Your task to perform on an android device: Go to notification settings Image 0: 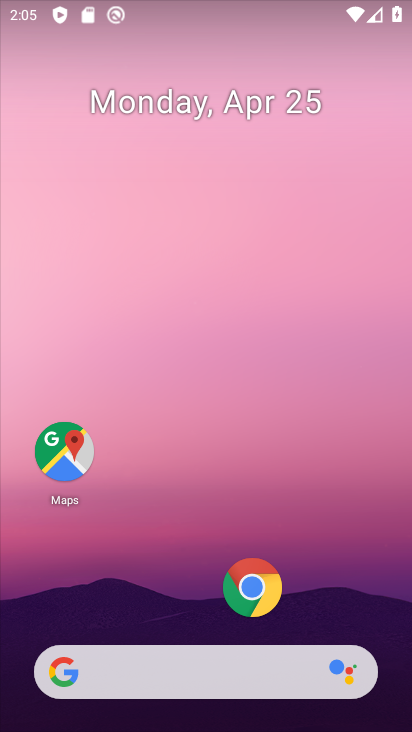
Step 0: drag from (206, 633) to (177, 73)
Your task to perform on an android device: Go to notification settings Image 1: 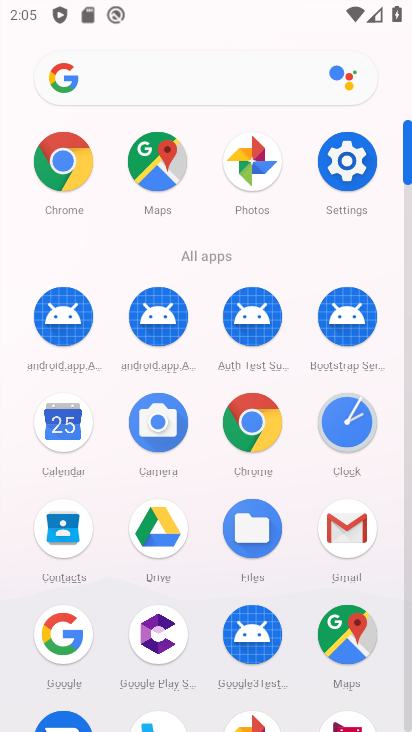
Step 1: click (345, 155)
Your task to perform on an android device: Go to notification settings Image 2: 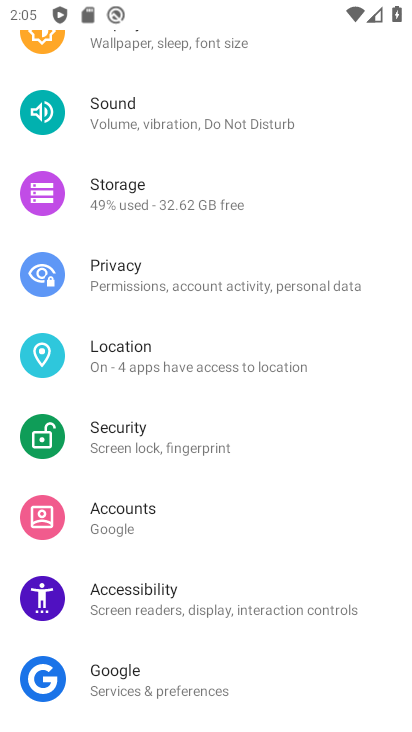
Step 2: drag from (165, 143) to (159, 637)
Your task to perform on an android device: Go to notification settings Image 3: 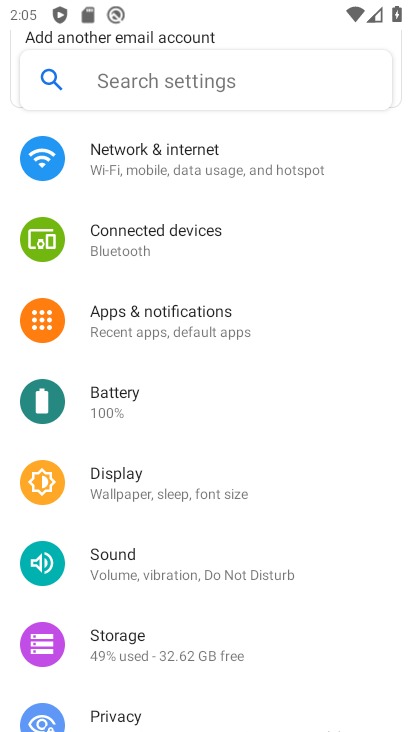
Step 3: click (243, 314)
Your task to perform on an android device: Go to notification settings Image 4: 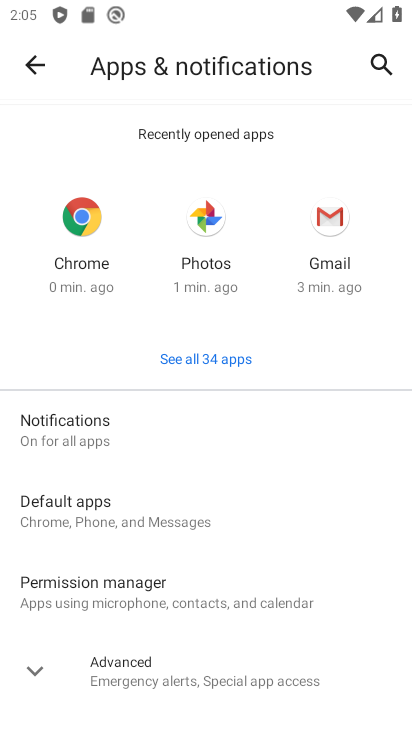
Step 4: click (115, 424)
Your task to perform on an android device: Go to notification settings Image 5: 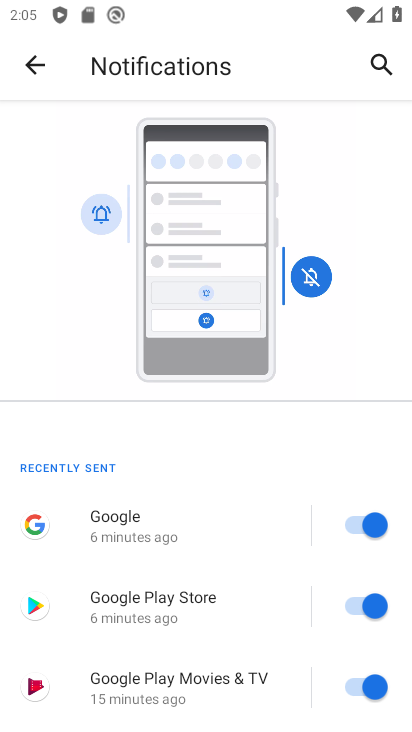
Step 5: drag from (235, 659) to (232, 228)
Your task to perform on an android device: Go to notification settings Image 6: 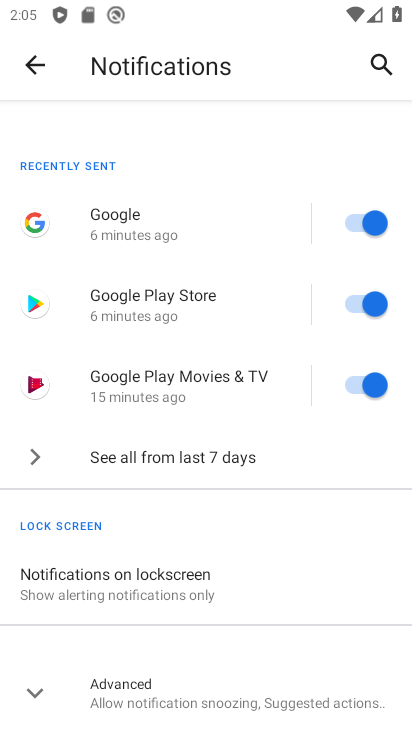
Step 6: click (352, 216)
Your task to perform on an android device: Go to notification settings Image 7: 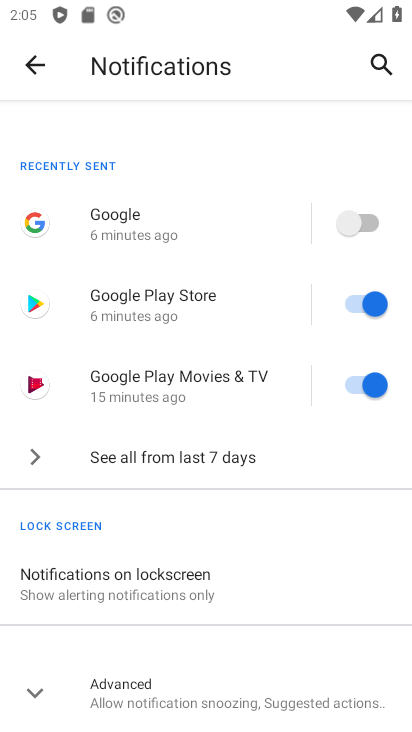
Step 7: click (348, 296)
Your task to perform on an android device: Go to notification settings Image 8: 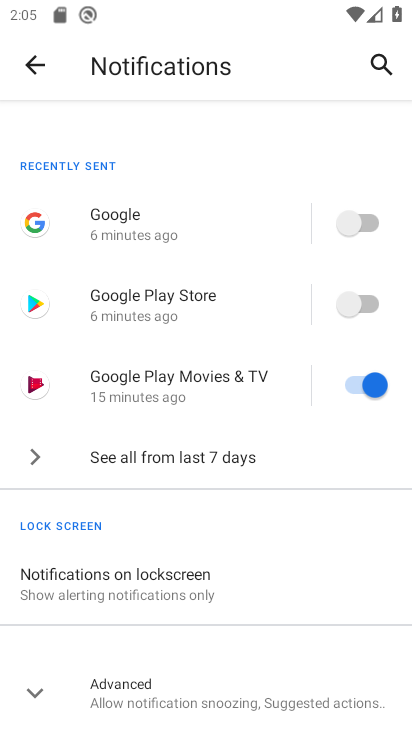
Step 8: click (358, 383)
Your task to perform on an android device: Go to notification settings Image 9: 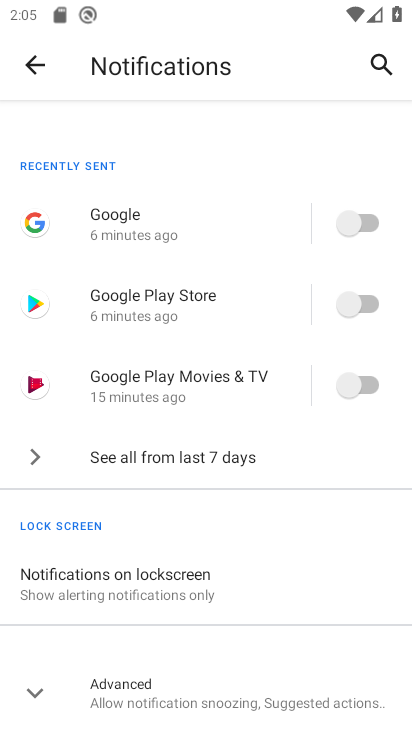
Step 9: click (228, 575)
Your task to perform on an android device: Go to notification settings Image 10: 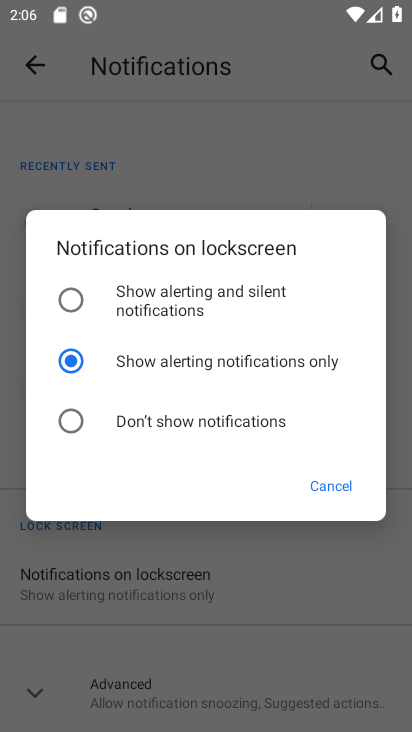
Step 10: click (65, 295)
Your task to perform on an android device: Go to notification settings Image 11: 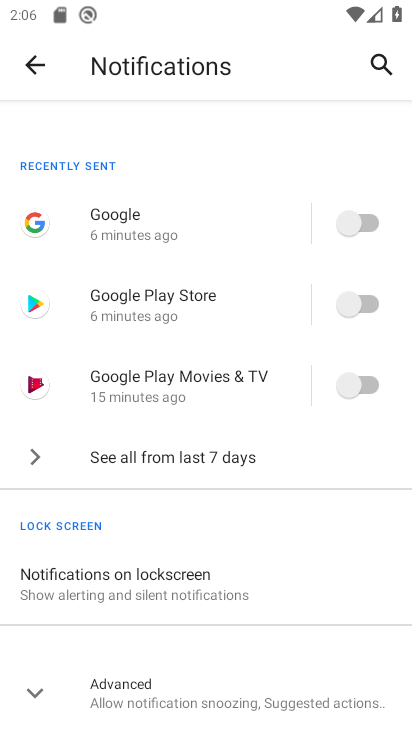
Step 11: task complete